Your task to perform on an android device: turn off notifications in google photos Image 0: 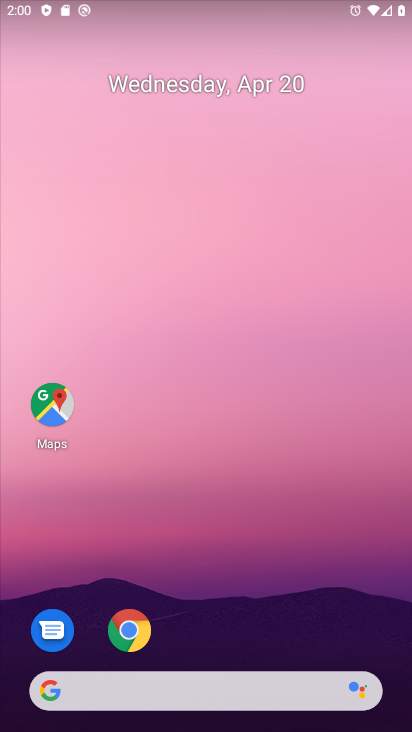
Step 0: drag from (184, 594) to (76, 157)
Your task to perform on an android device: turn off notifications in google photos Image 1: 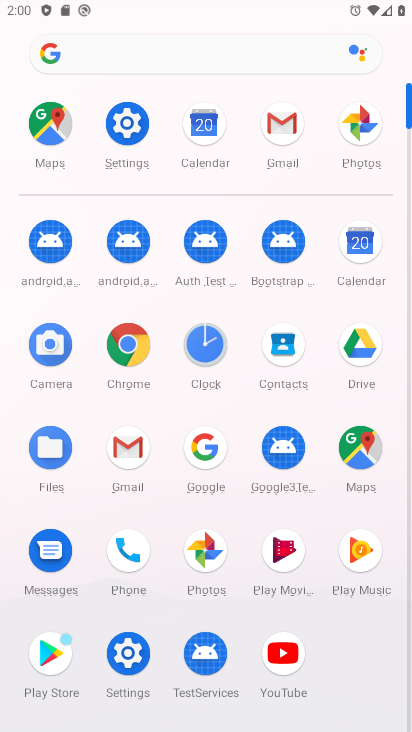
Step 1: click (201, 547)
Your task to perform on an android device: turn off notifications in google photos Image 2: 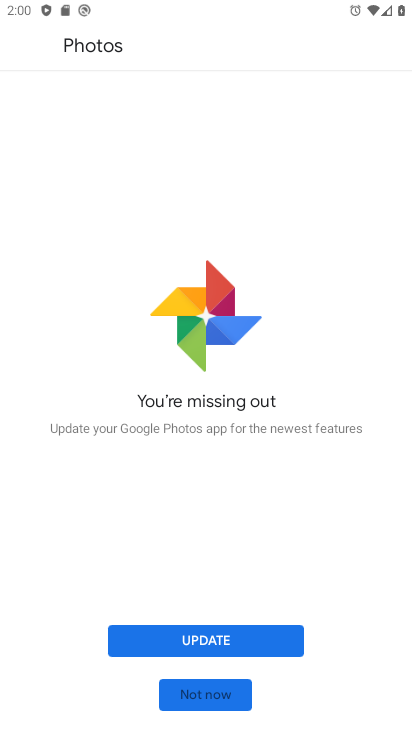
Step 2: click (208, 698)
Your task to perform on an android device: turn off notifications in google photos Image 3: 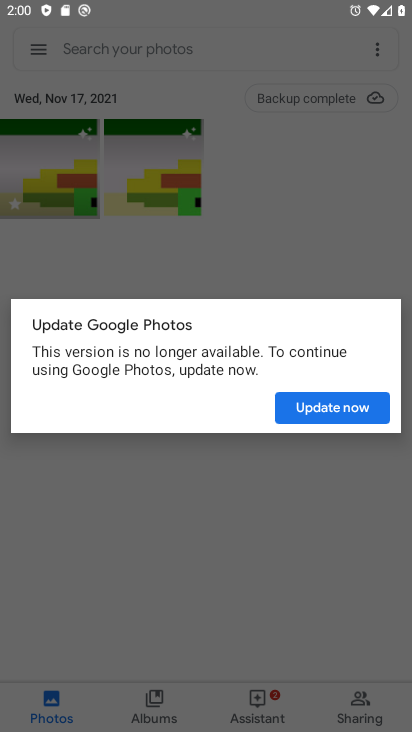
Step 3: press back button
Your task to perform on an android device: turn off notifications in google photos Image 4: 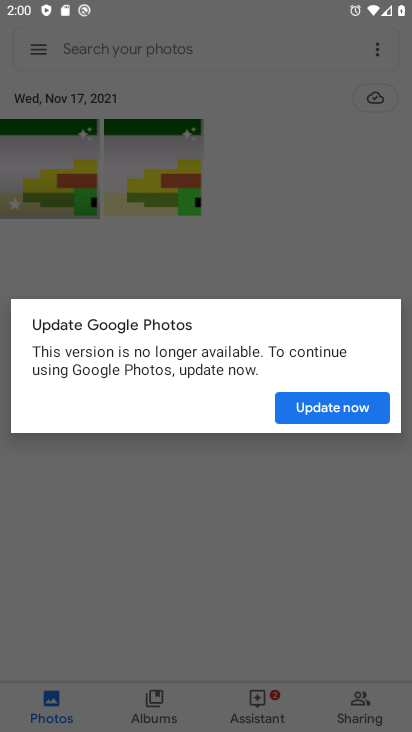
Step 4: click (54, 59)
Your task to perform on an android device: turn off notifications in google photos Image 5: 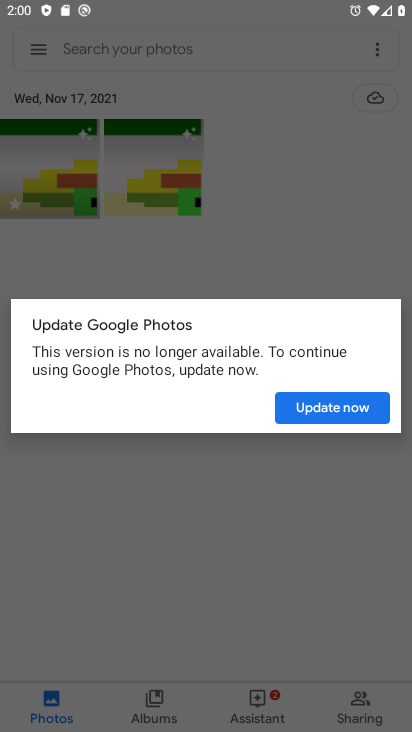
Step 5: press back button
Your task to perform on an android device: turn off notifications in google photos Image 6: 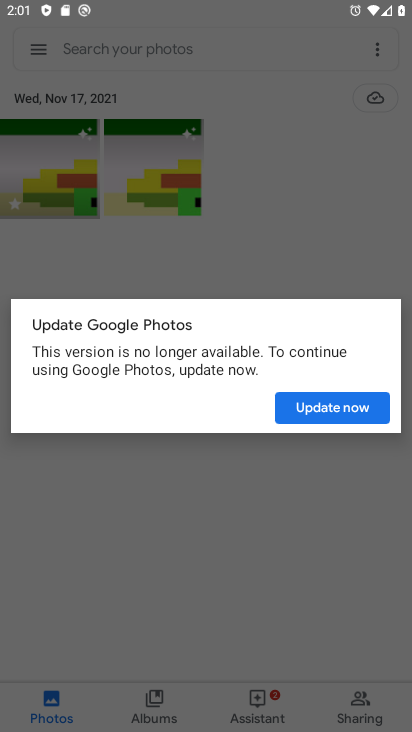
Step 6: click (356, 402)
Your task to perform on an android device: turn off notifications in google photos Image 7: 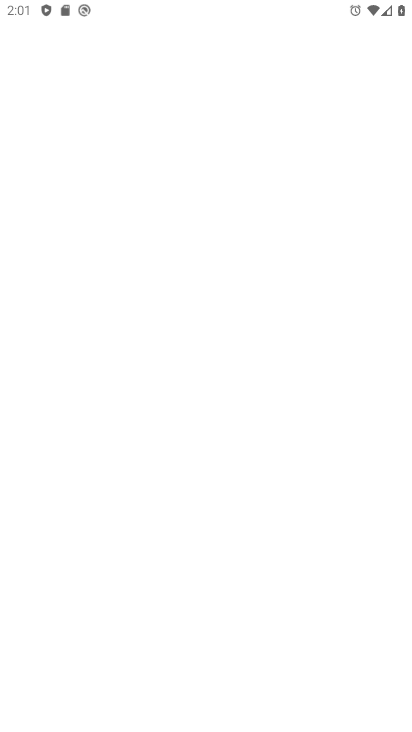
Step 7: press back button
Your task to perform on an android device: turn off notifications in google photos Image 8: 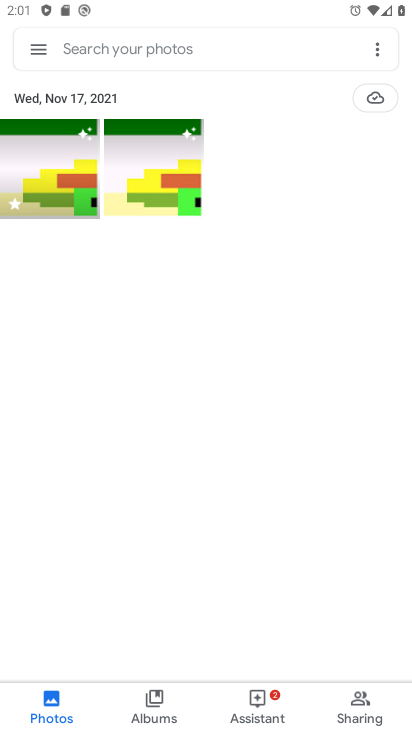
Step 8: click (30, 53)
Your task to perform on an android device: turn off notifications in google photos Image 9: 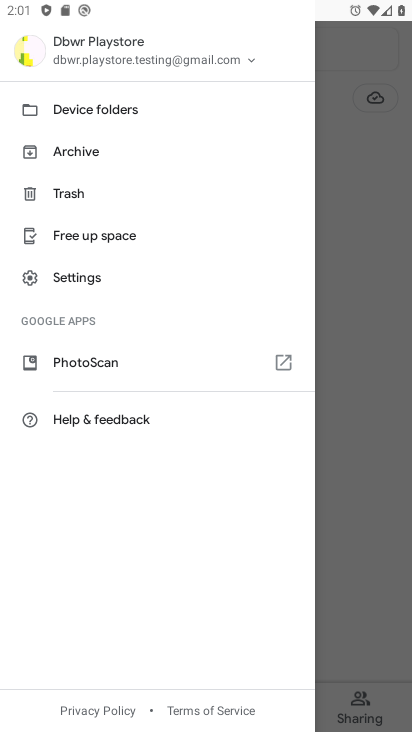
Step 9: click (72, 276)
Your task to perform on an android device: turn off notifications in google photos Image 10: 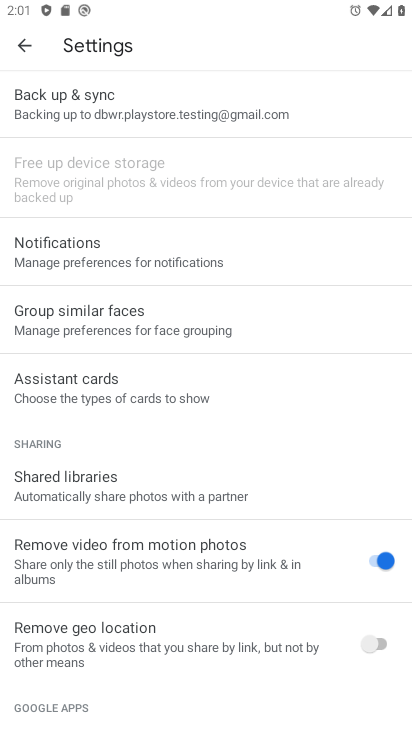
Step 10: click (131, 271)
Your task to perform on an android device: turn off notifications in google photos Image 11: 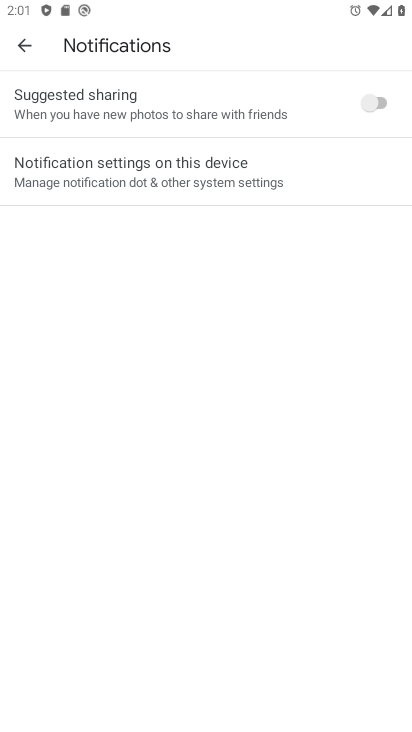
Step 11: click (142, 180)
Your task to perform on an android device: turn off notifications in google photos Image 12: 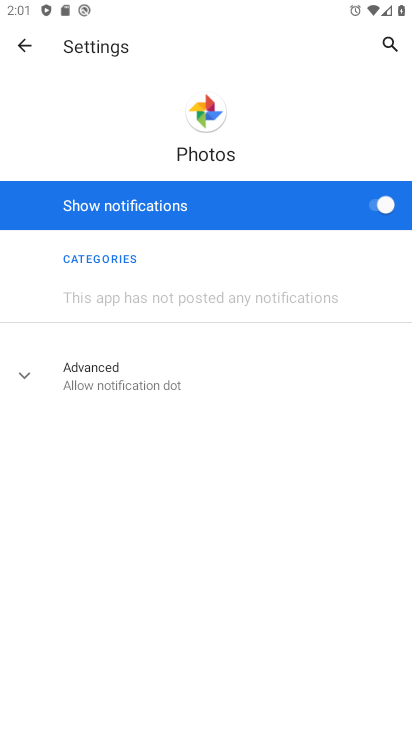
Step 12: click (375, 208)
Your task to perform on an android device: turn off notifications in google photos Image 13: 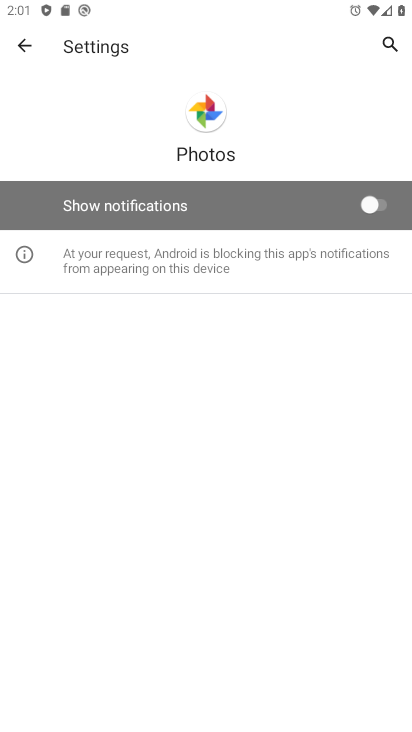
Step 13: task complete